Your task to perform on an android device: turn notification dots on Image 0: 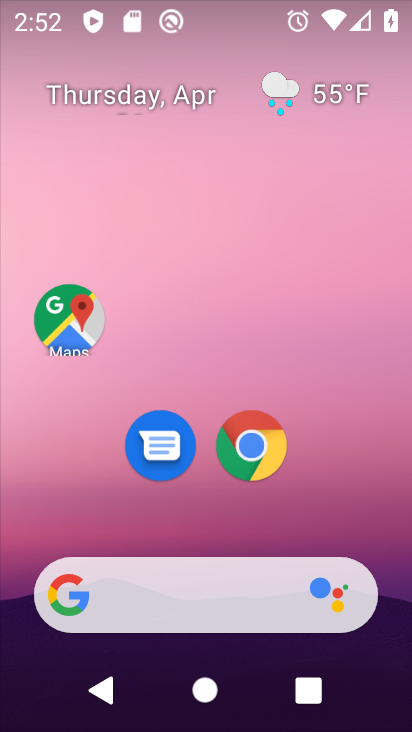
Step 0: drag from (214, 720) to (209, 38)
Your task to perform on an android device: turn notification dots on Image 1: 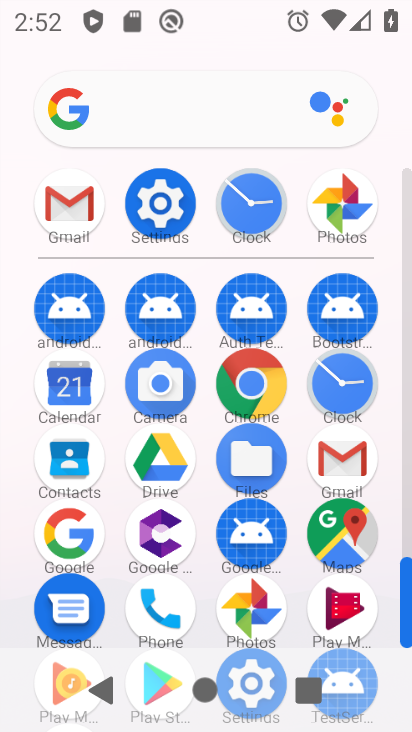
Step 1: click (159, 207)
Your task to perform on an android device: turn notification dots on Image 2: 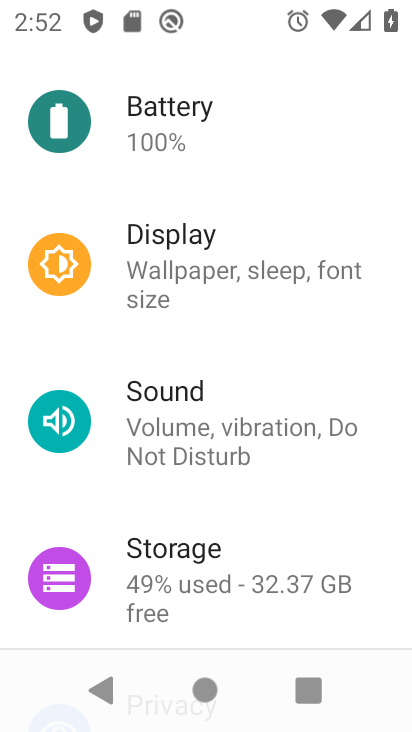
Step 2: click (203, 518)
Your task to perform on an android device: turn notification dots on Image 3: 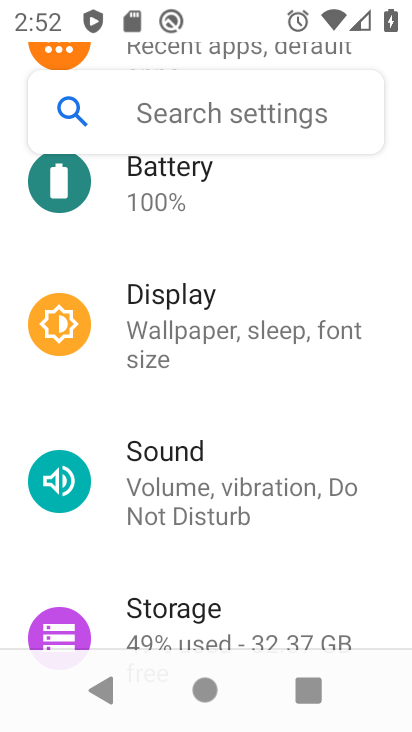
Step 3: drag from (211, 178) to (229, 493)
Your task to perform on an android device: turn notification dots on Image 4: 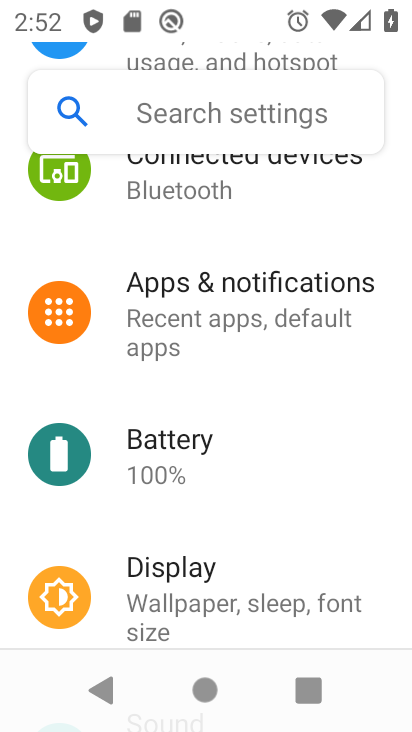
Step 4: click (229, 304)
Your task to perform on an android device: turn notification dots on Image 5: 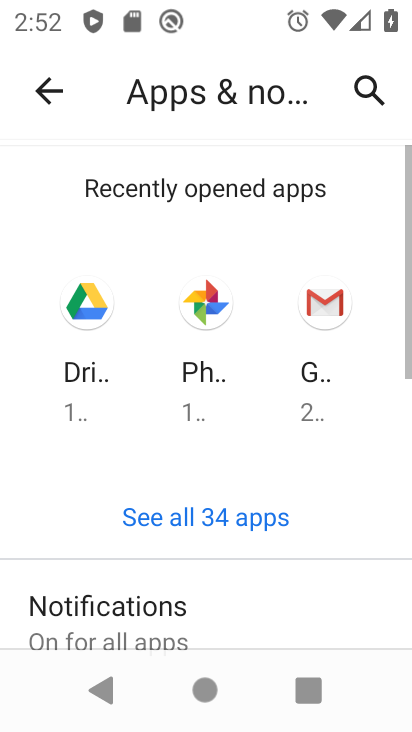
Step 5: drag from (228, 629) to (215, 236)
Your task to perform on an android device: turn notification dots on Image 6: 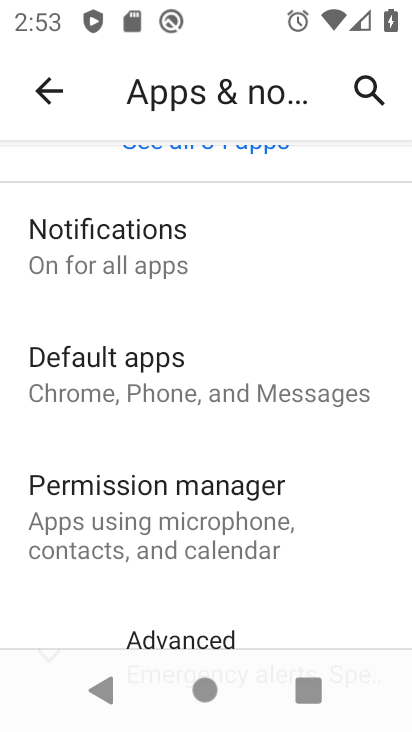
Step 6: click (97, 265)
Your task to perform on an android device: turn notification dots on Image 7: 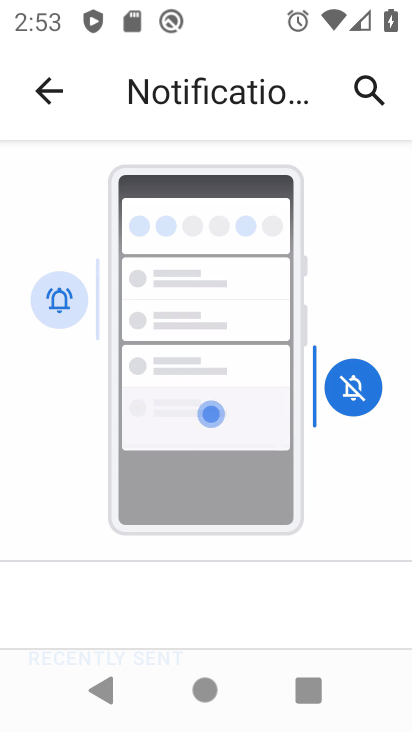
Step 7: drag from (210, 621) to (204, 253)
Your task to perform on an android device: turn notification dots on Image 8: 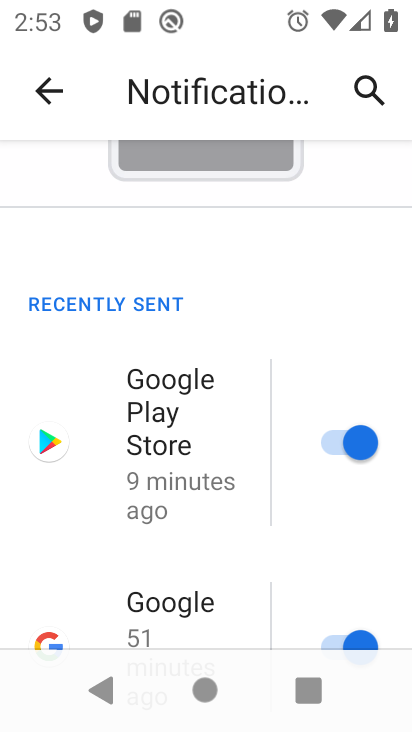
Step 8: drag from (227, 619) to (209, 238)
Your task to perform on an android device: turn notification dots on Image 9: 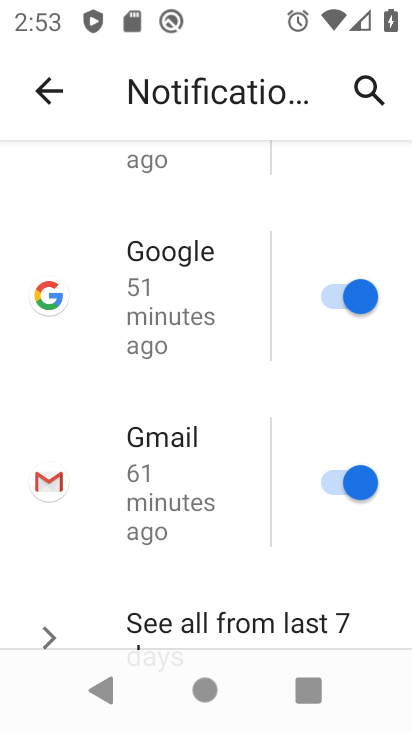
Step 9: drag from (228, 613) to (211, 281)
Your task to perform on an android device: turn notification dots on Image 10: 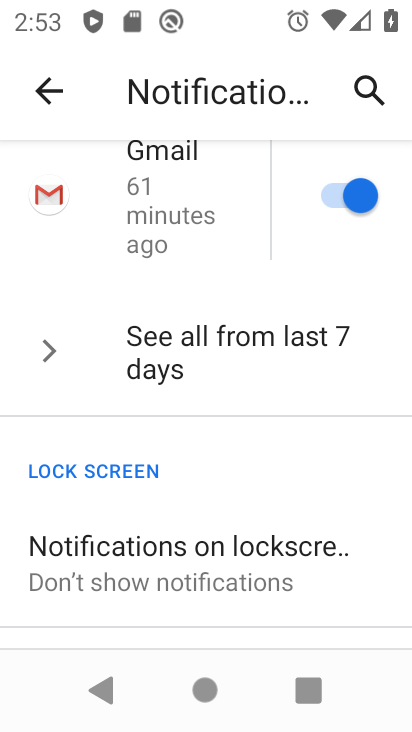
Step 10: drag from (227, 614) to (208, 317)
Your task to perform on an android device: turn notification dots on Image 11: 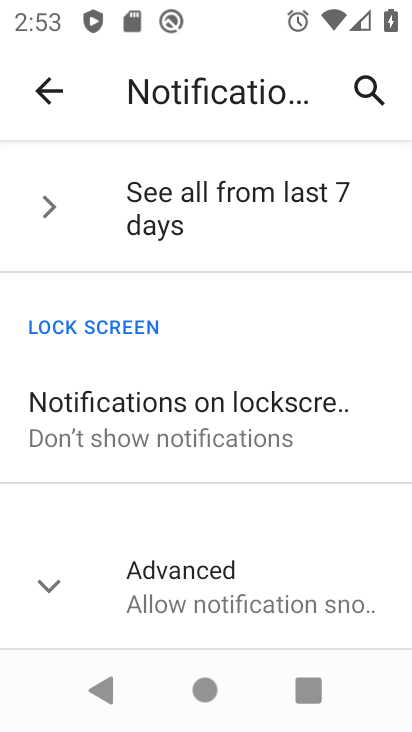
Step 11: click (217, 591)
Your task to perform on an android device: turn notification dots on Image 12: 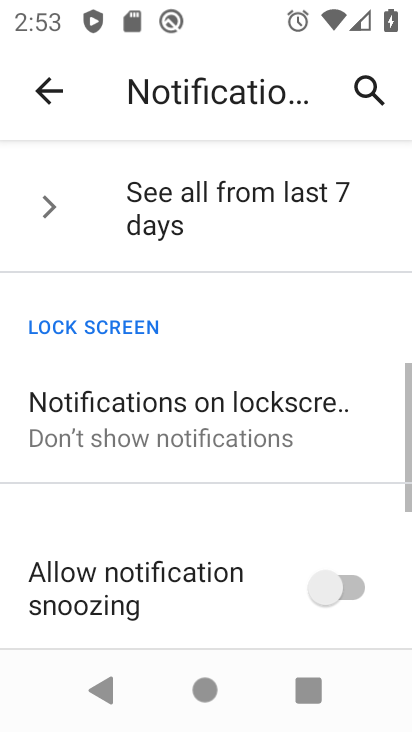
Step 12: drag from (250, 620) to (221, 252)
Your task to perform on an android device: turn notification dots on Image 13: 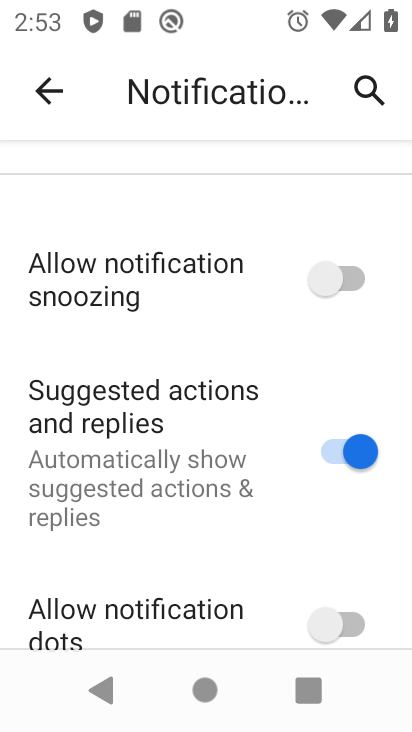
Step 13: drag from (240, 616) to (211, 392)
Your task to perform on an android device: turn notification dots on Image 14: 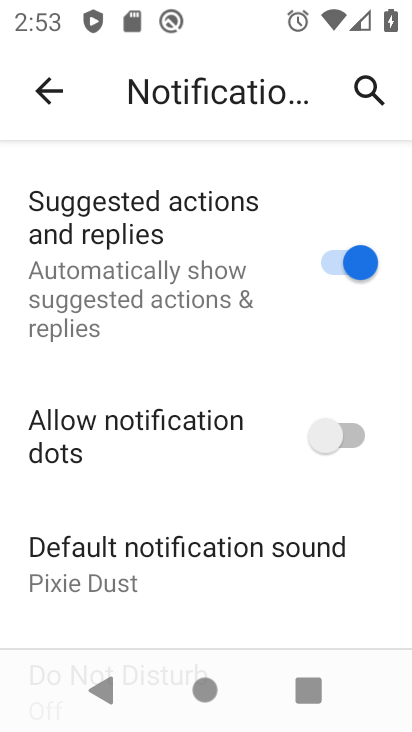
Step 14: click (350, 434)
Your task to perform on an android device: turn notification dots on Image 15: 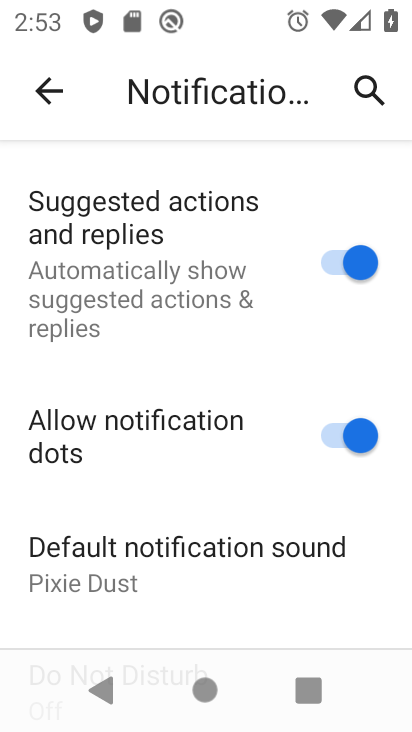
Step 15: task complete